Your task to perform on an android device: check out phone information Image 0: 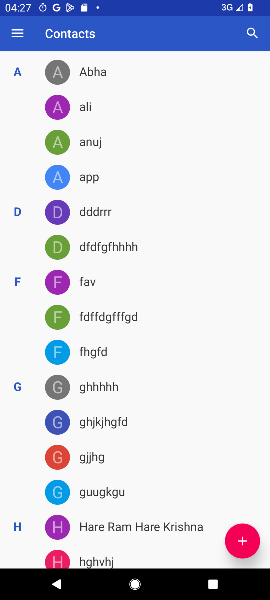
Step 0: press home button
Your task to perform on an android device: check out phone information Image 1: 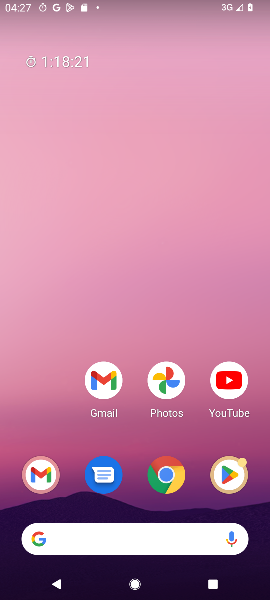
Step 1: drag from (52, 423) to (46, 159)
Your task to perform on an android device: check out phone information Image 2: 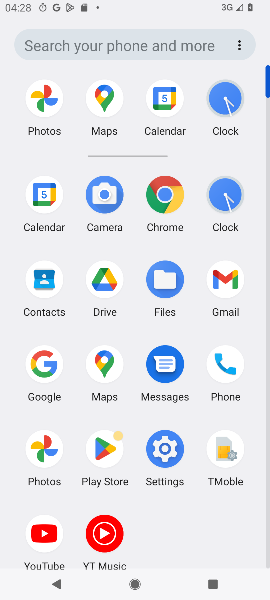
Step 2: click (227, 367)
Your task to perform on an android device: check out phone information Image 3: 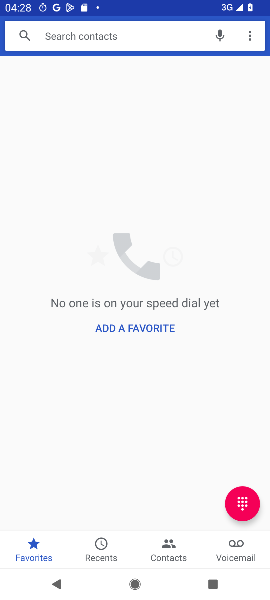
Step 3: task complete